Your task to perform on an android device: Go to Yahoo.com Image 0: 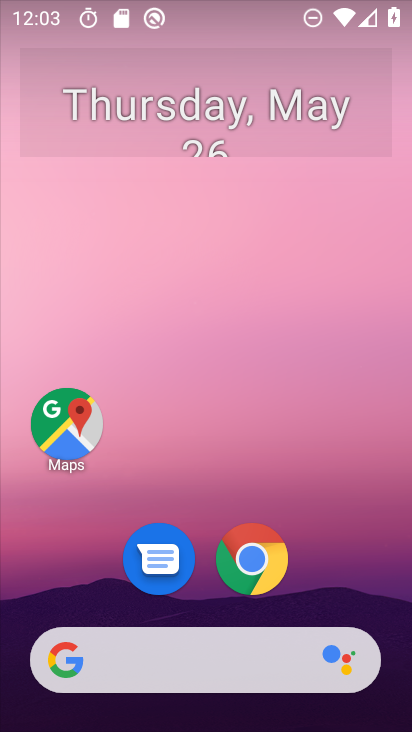
Step 0: drag from (361, 601) to (324, 144)
Your task to perform on an android device: Go to Yahoo.com Image 1: 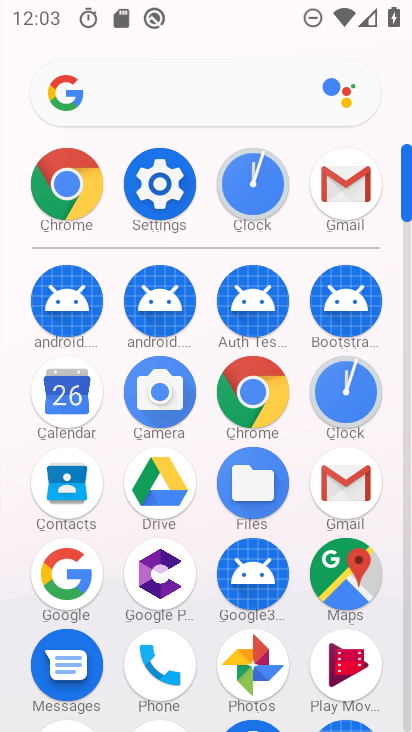
Step 1: click (258, 401)
Your task to perform on an android device: Go to Yahoo.com Image 2: 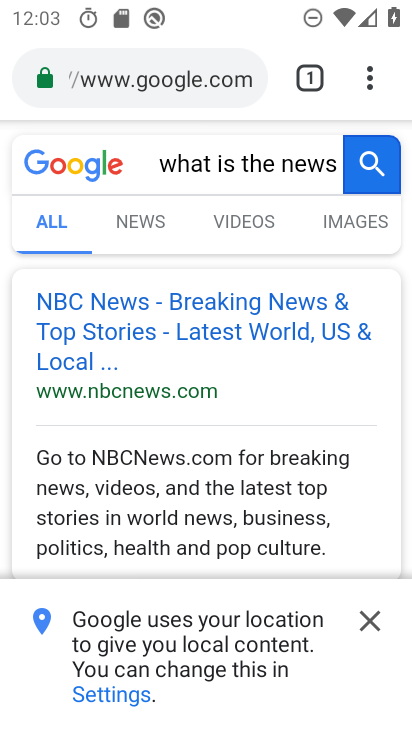
Step 2: click (146, 99)
Your task to perform on an android device: Go to Yahoo.com Image 3: 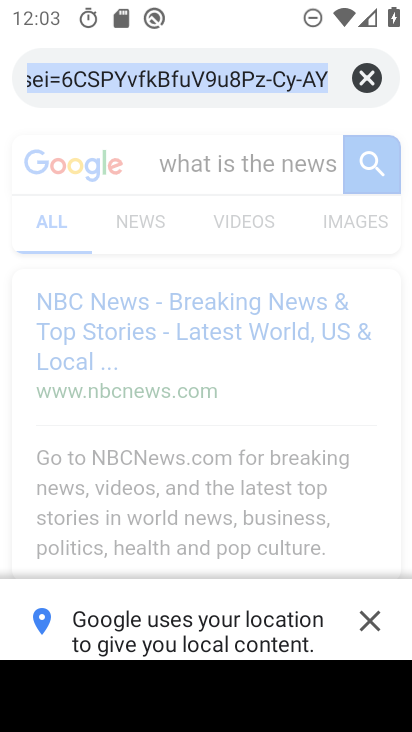
Step 3: click (364, 71)
Your task to perform on an android device: Go to Yahoo.com Image 4: 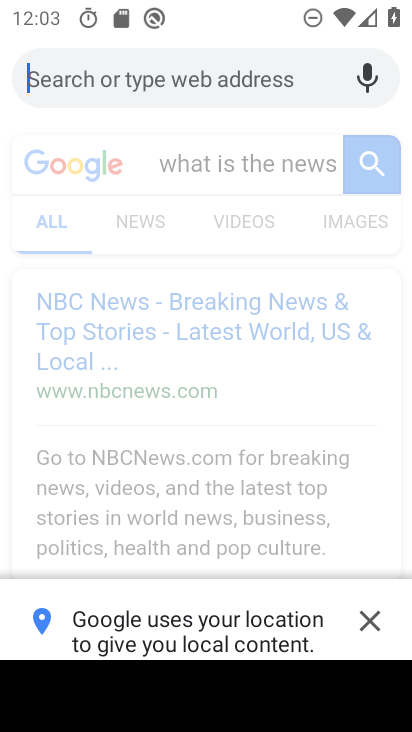
Step 4: type "yahoo.com"
Your task to perform on an android device: Go to Yahoo.com Image 5: 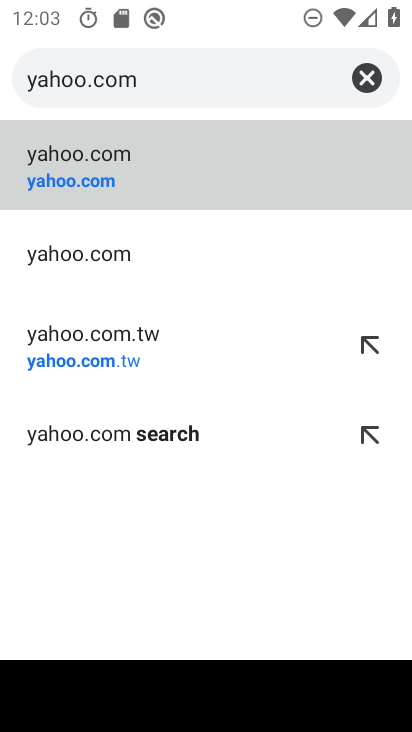
Step 5: click (84, 165)
Your task to perform on an android device: Go to Yahoo.com Image 6: 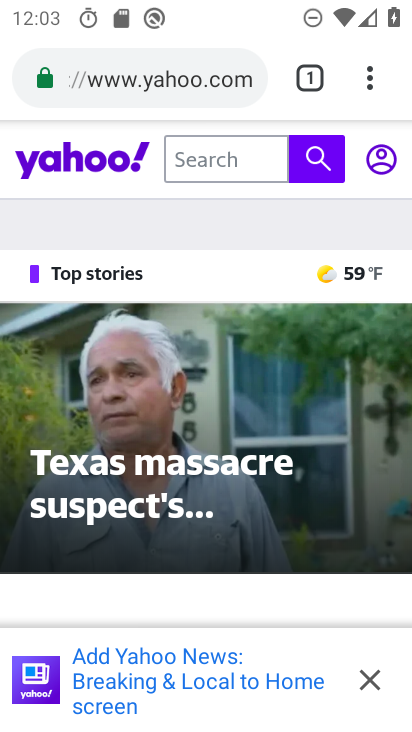
Step 6: task complete